Your task to perform on an android device: delete the emails in spam in the gmail app Image 0: 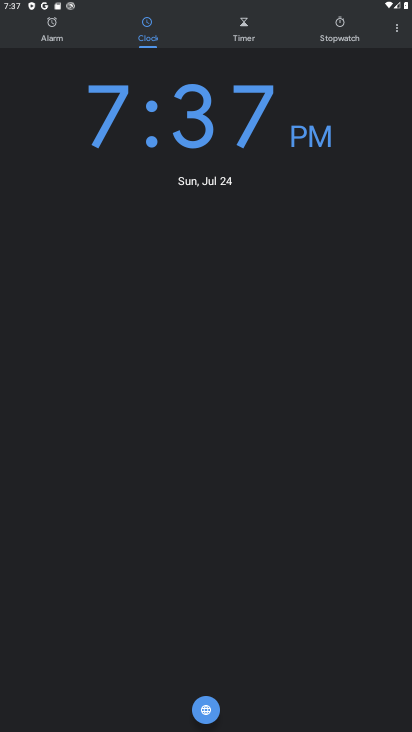
Step 0: press home button
Your task to perform on an android device: delete the emails in spam in the gmail app Image 1: 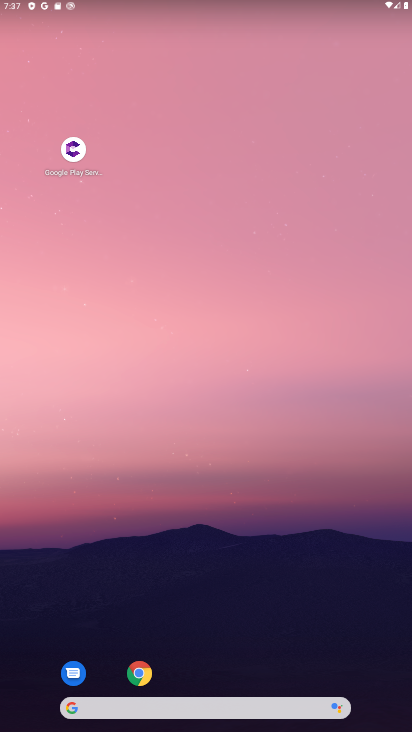
Step 1: drag from (48, 709) to (235, 1)
Your task to perform on an android device: delete the emails in spam in the gmail app Image 2: 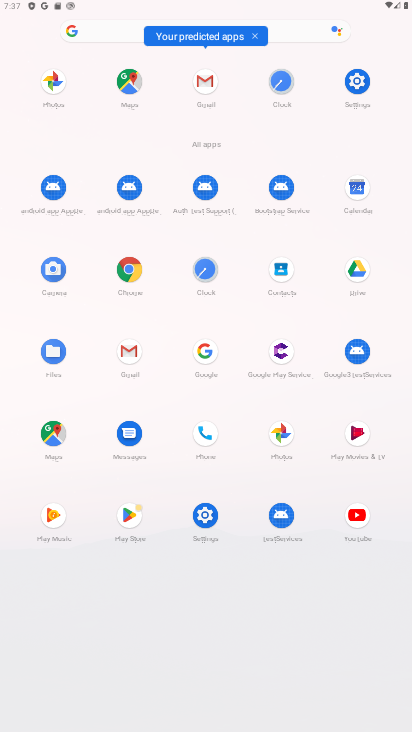
Step 2: click (136, 336)
Your task to perform on an android device: delete the emails in spam in the gmail app Image 3: 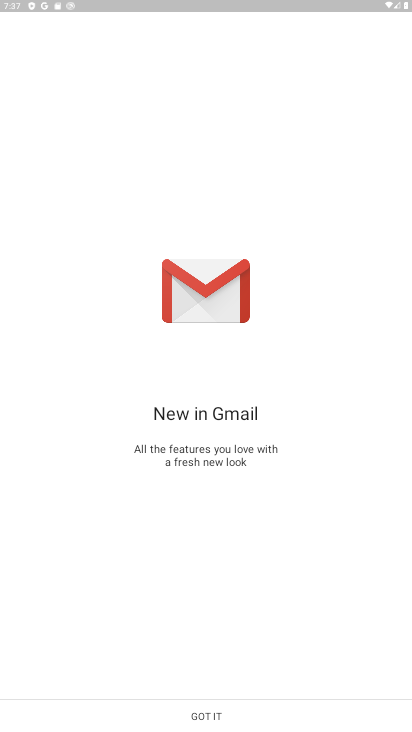
Step 3: click (196, 718)
Your task to perform on an android device: delete the emails in spam in the gmail app Image 4: 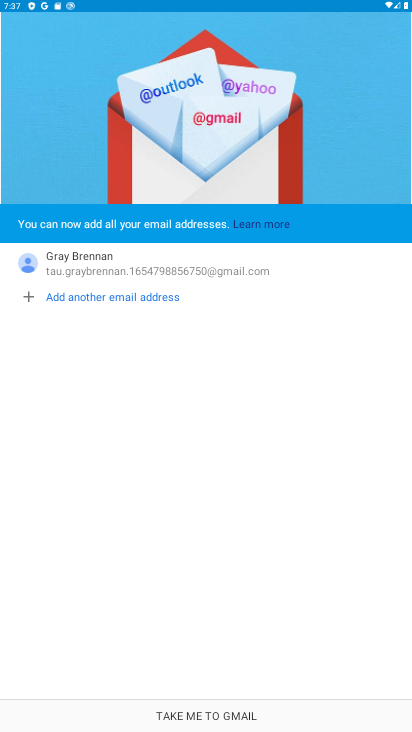
Step 4: click (176, 714)
Your task to perform on an android device: delete the emails in spam in the gmail app Image 5: 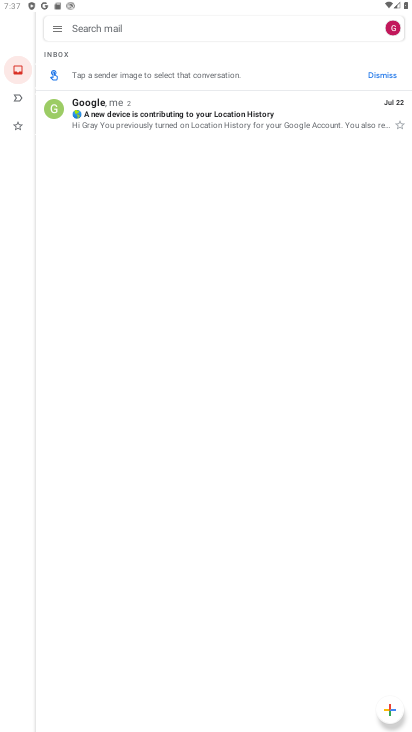
Step 5: click (57, 22)
Your task to perform on an android device: delete the emails in spam in the gmail app Image 6: 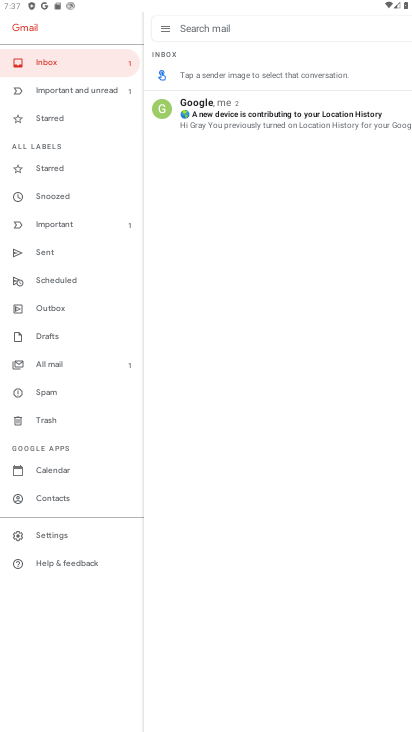
Step 6: click (53, 393)
Your task to perform on an android device: delete the emails in spam in the gmail app Image 7: 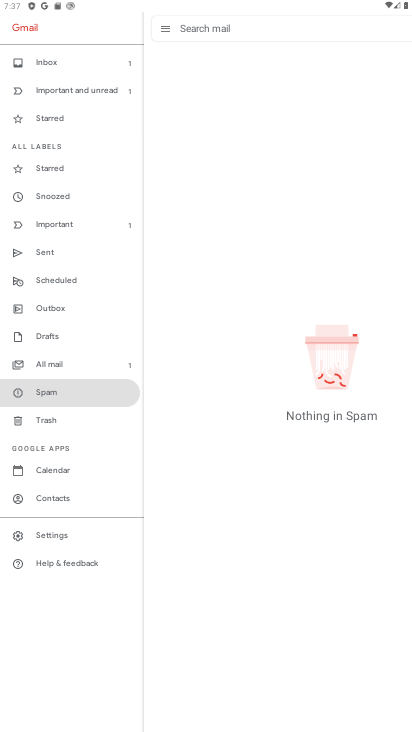
Step 7: task complete